Your task to perform on an android device: Open ESPN.com Image 0: 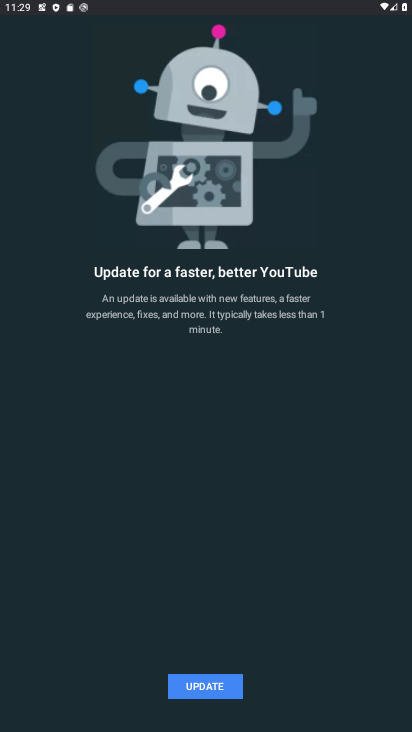
Step 0: press home button
Your task to perform on an android device: Open ESPN.com Image 1: 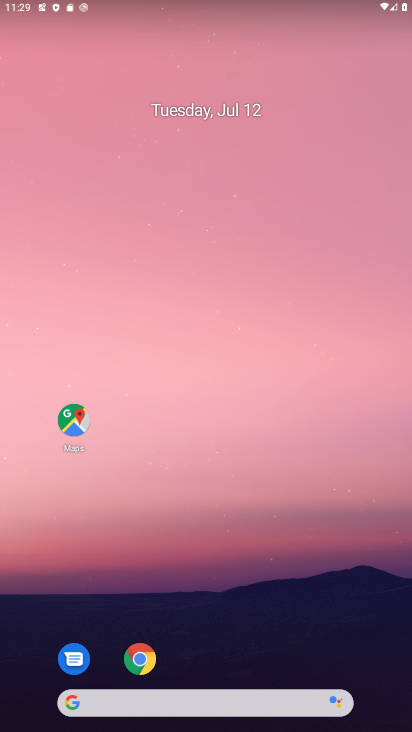
Step 1: drag from (317, 605) to (277, 6)
Your task to perform on an android device: Open ESPN.com Image 2: 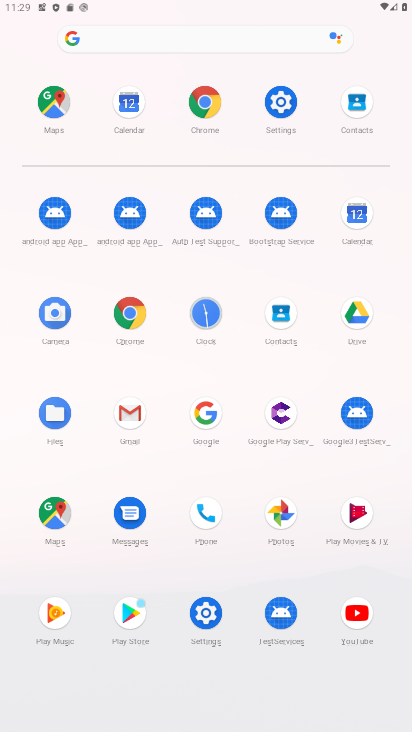
Step 2: click (128, 315)
Your task to perform on an android device: Open ESPN.com Image 3: 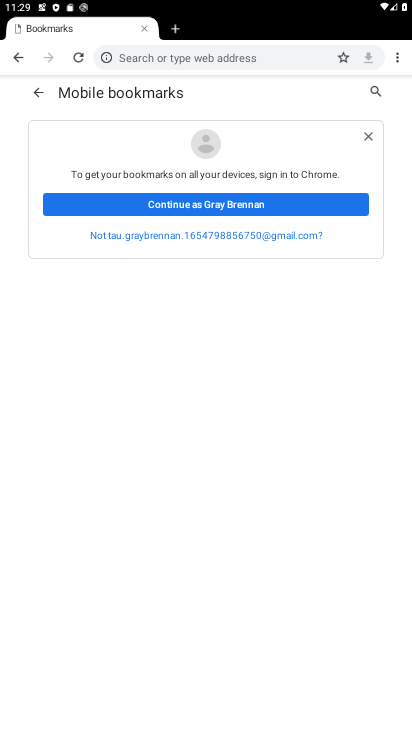
Step 3: click (181, 57)
Your task to perform on an android device: Open ESPN.com Image 4: 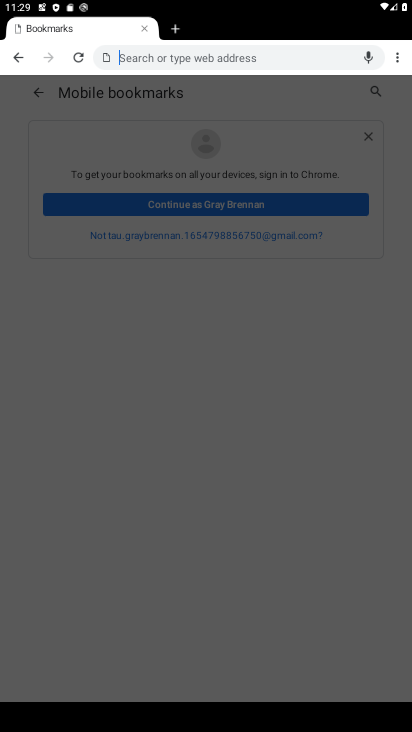
Step 4: drag from (397, 55) to (274, 57)
Your task to perform on an android device: Open ESPN.com Image 5: 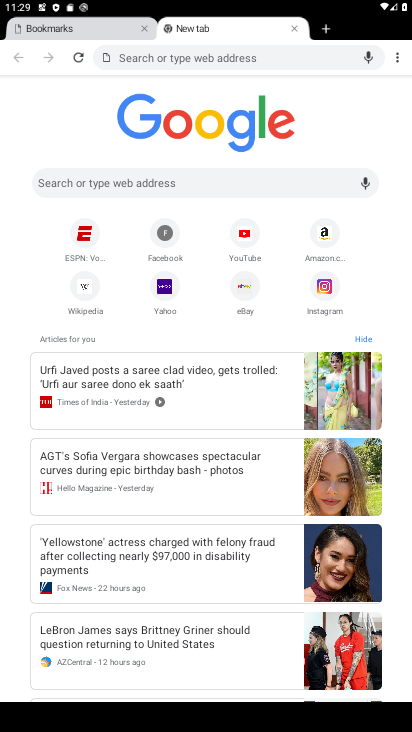
Step 5: click (84, 233)
Your task to perform on an android device: Open ESPN.com Image 6: 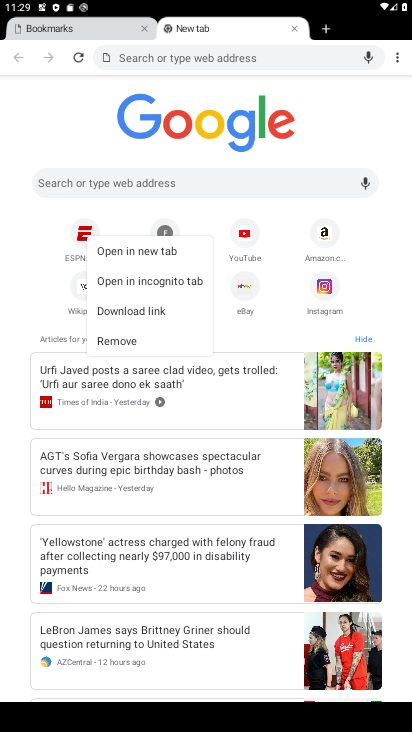
Step 6: task complete